Your task to perform on an android device: turn on airplane mode Image 0: 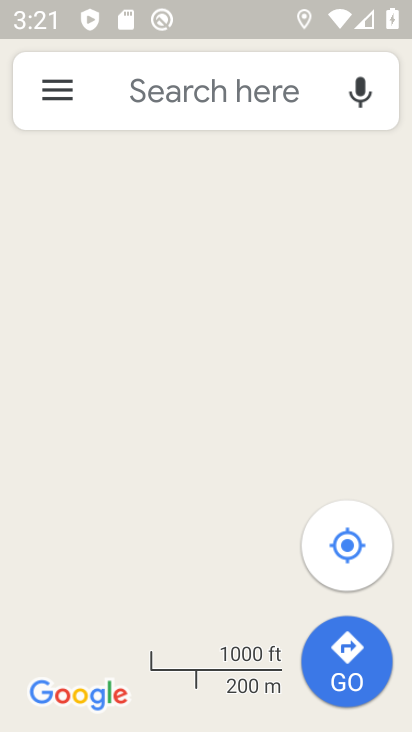
Step 0: press back button
Your task to perform on an android device: turn on airplane mode Image 1: 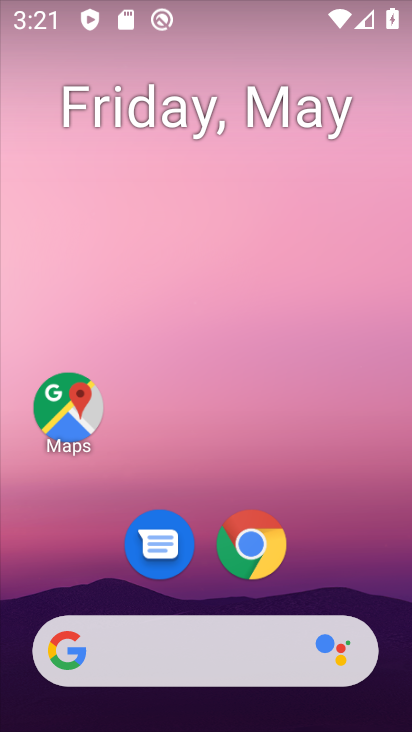
Step 1: drag from (296, 726) to (112, 2)
Your task to perform on an android device: turn on airplane mode Image 2: 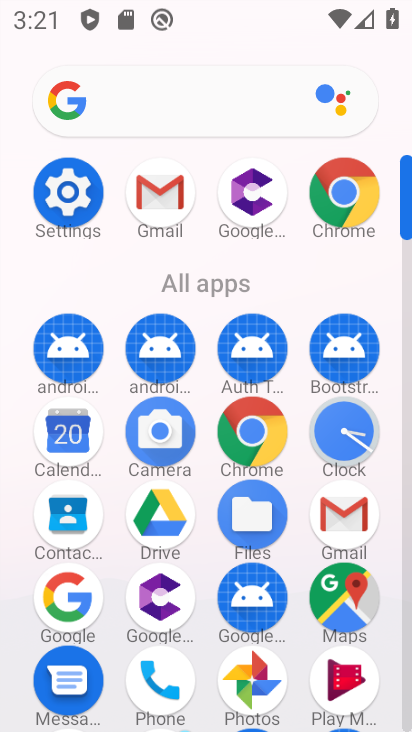
Step 2: click (63, 198)
Your task to perform on an android device: turn on airplane mode Image 3: 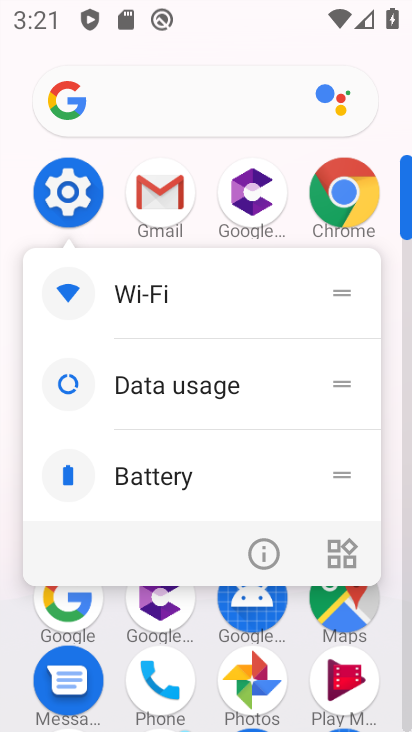
Step 3: click (64, 198)
Your task to perform on an android device: turn on airplane mode Image 4: 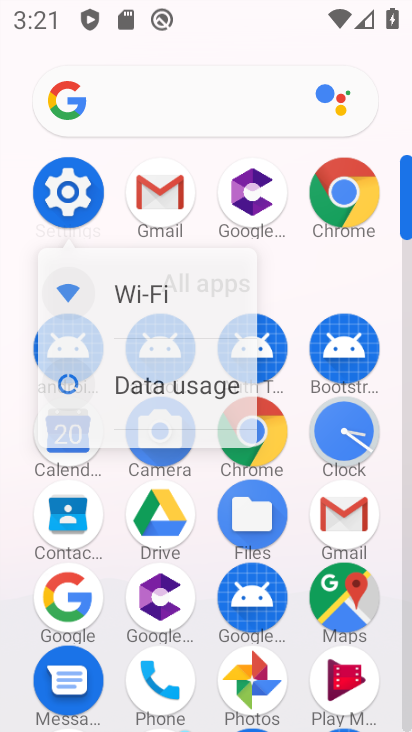
Step 4: click (64, 198)
Your task to perform on an android device: turn on airplane mode Image 5: 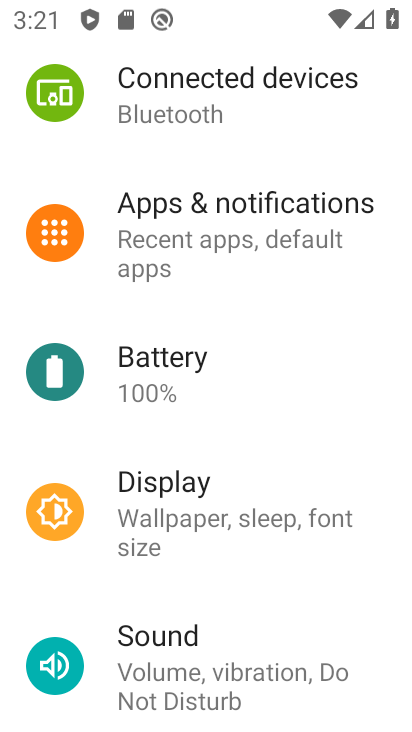
Step 5: drag from (212, 110) to (162, 525)
Your task to perform on an android device: turn on airplane mode Image 6: 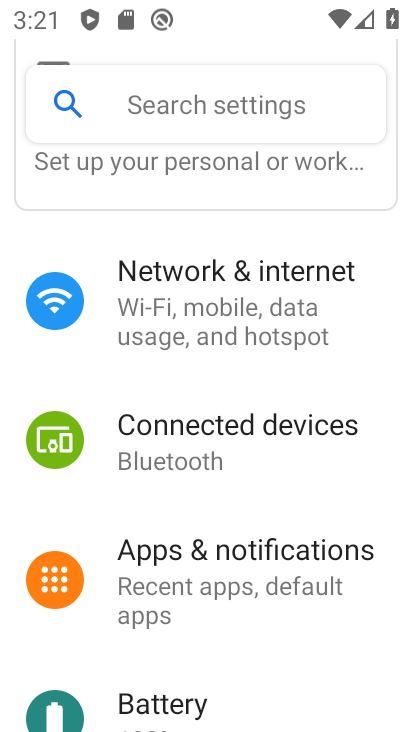
Step 6: click (204, 297)
Your task to perform on an android device: turn on airplane mode Image 7: 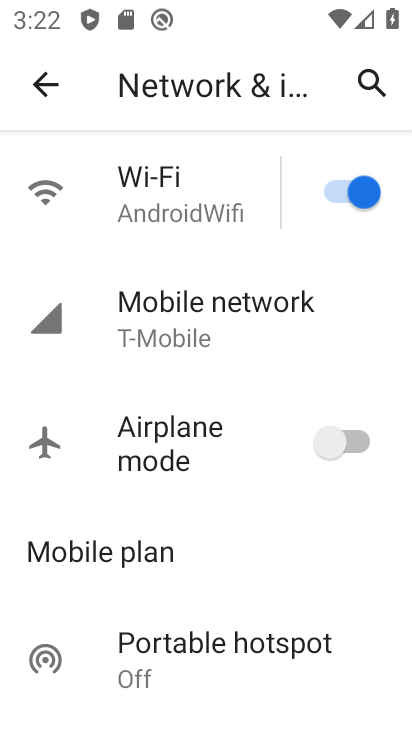
Step 7: click (333, 446)
Your task to perform on an android device: turn on airplane mode Image 8: 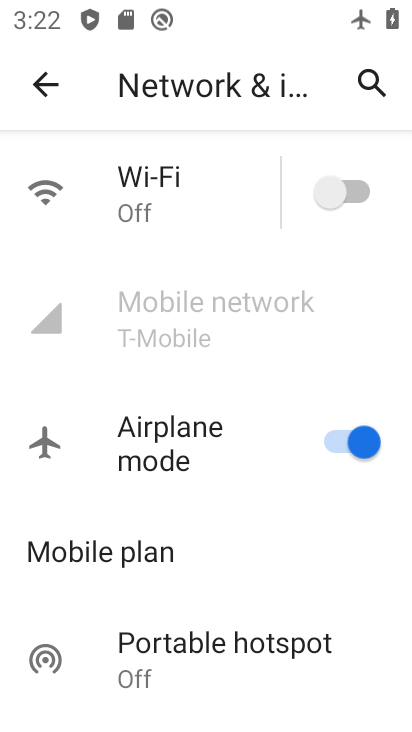
Step 8: task complete